Your task to perform on an android device: Open settings Image 0: 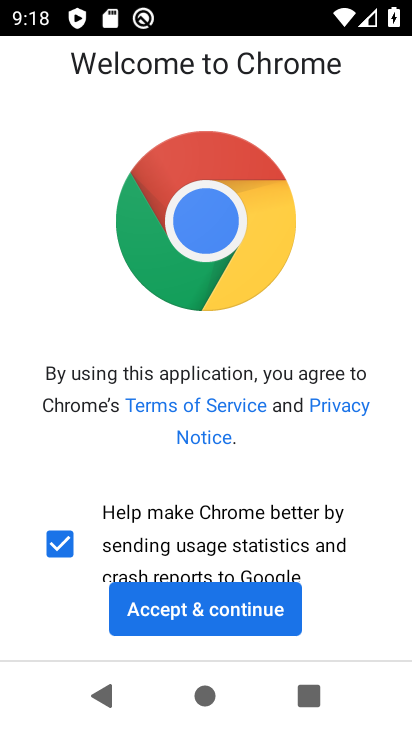
Step 0: press home button
Your task to perform on an android device: Open settings Image 1: 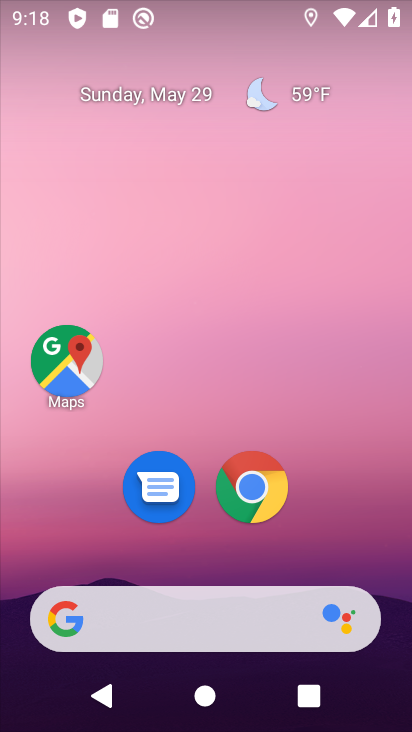
Step 1: drag from (313, 536) to (230, 7)
Your task to perform on an android device: Open settings Image 2: 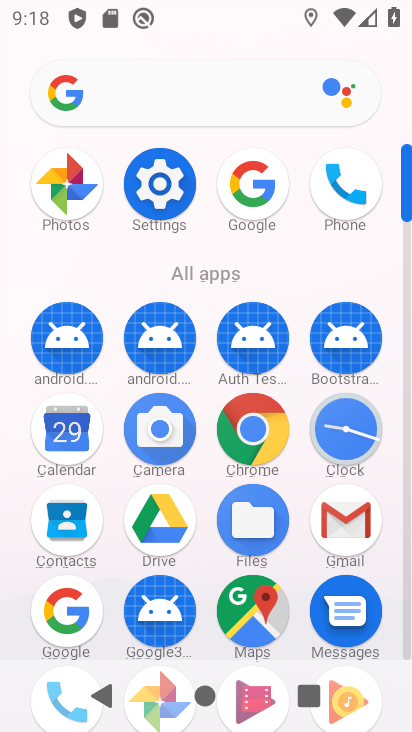
Step 2: click (160, 183)
Your task to perform on an android device: Open settings Image 3: 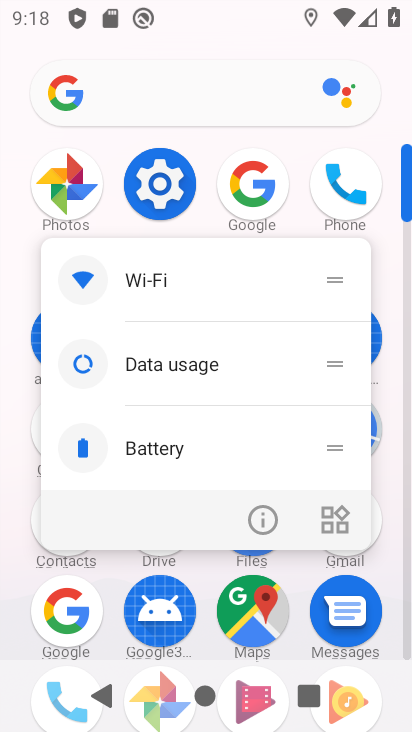
Step 3: click (160, 183)
Your task to perform on an android device: Open settings Image 4: 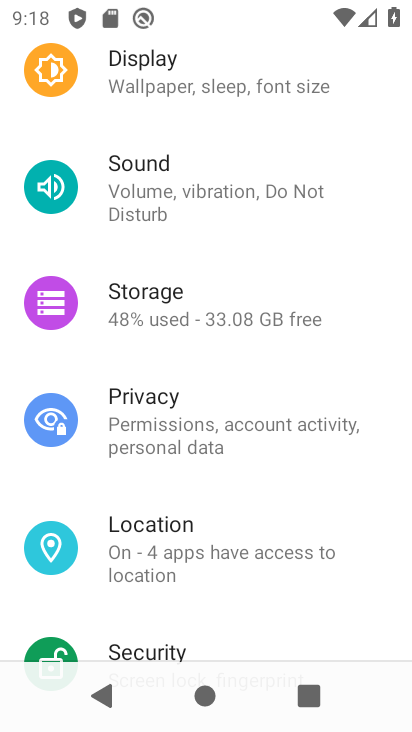
Step 4: task complete